Your task to perform on an android device: delete location history Image 0: 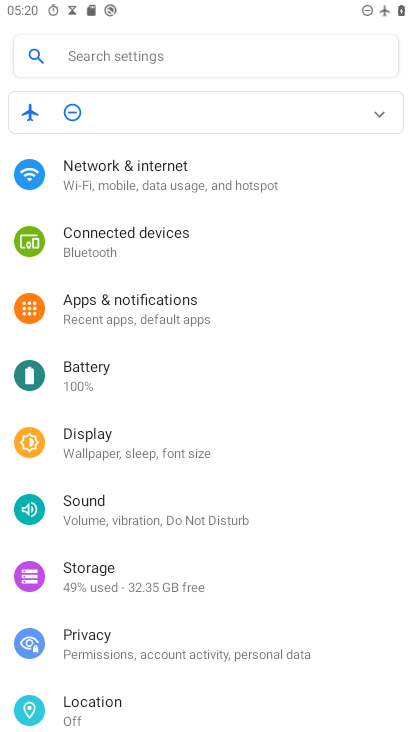
Step 0: press home button
Your task to perform on an android device: delete location history Image 1: 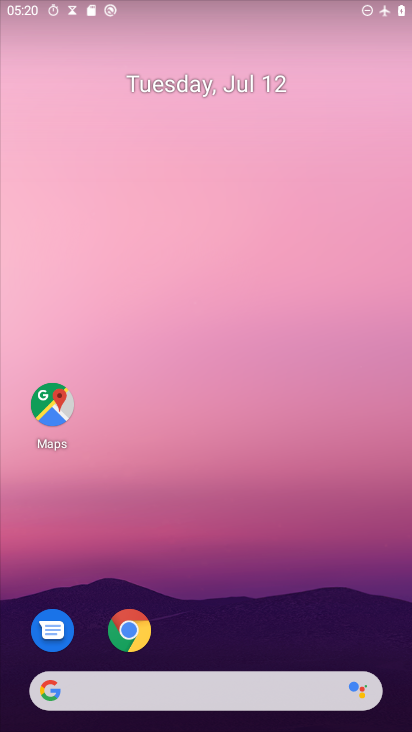
Step 1: drag from (174, 670) to (302, 120)
Your task to perform on an android device: delete location history Image 2: 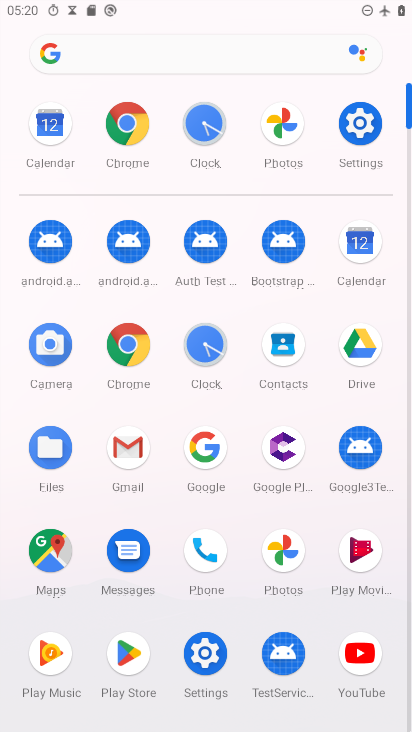
Step 2: click (39, 561)
Your task to perform on an android device: delete location history Image 3: 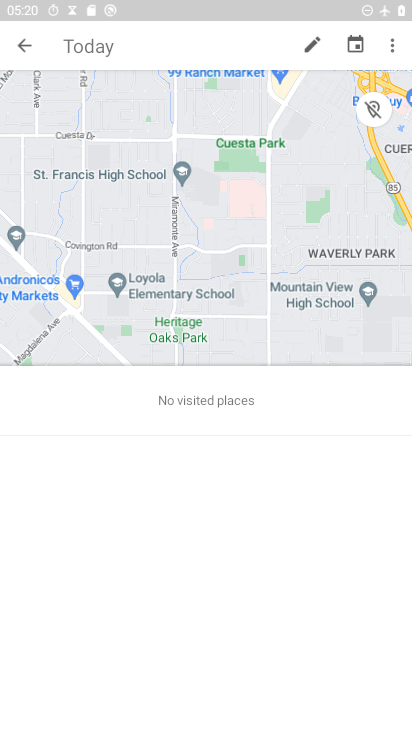
Step 3: click (387, 42)
Your task to perform on an android device: delete location history Image 4: 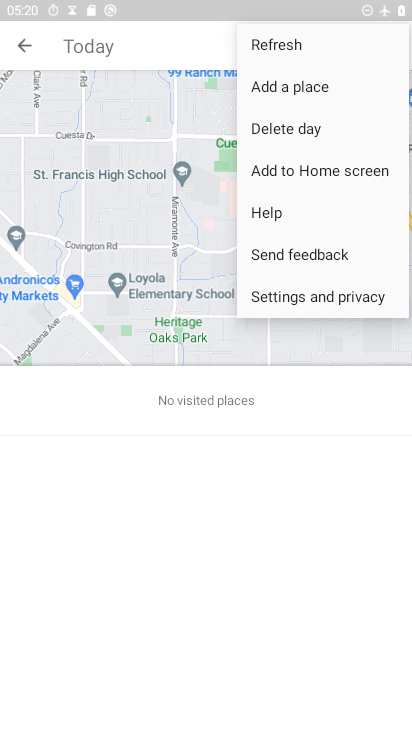
Step 4: click (286, 290)
Your task to perform on an android device: delete location history Image 5: 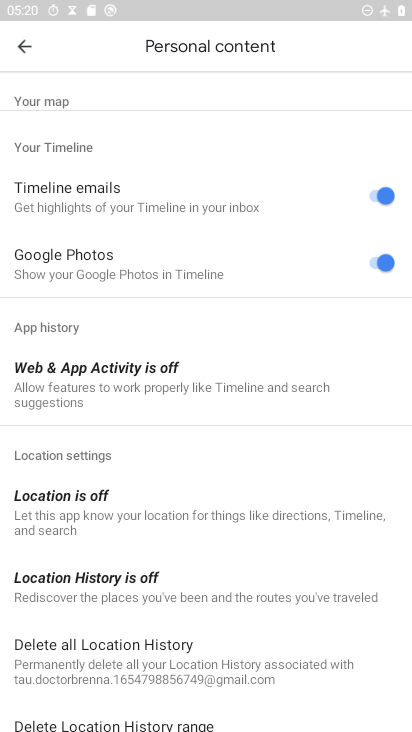
Step 5: click (163, 651)
Your task to perform on an android device: delete location history Image 6: 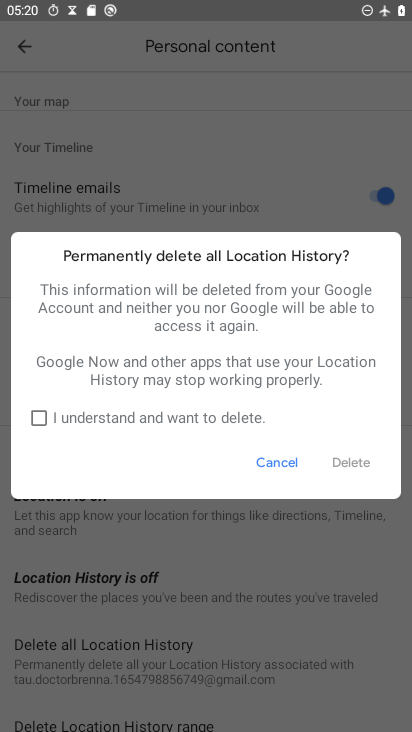
Step 6: click (42, 417)
Your task to perform on an android device: delete location history Image 7: 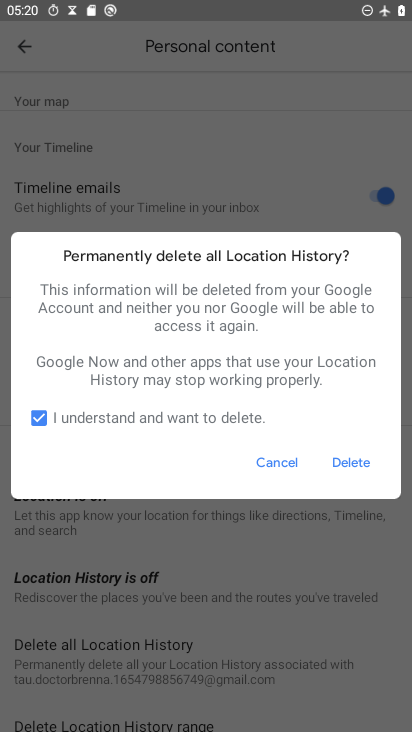
Step 7: click (365, 467)
Your task to perform on an android device: delete location history Image 8: 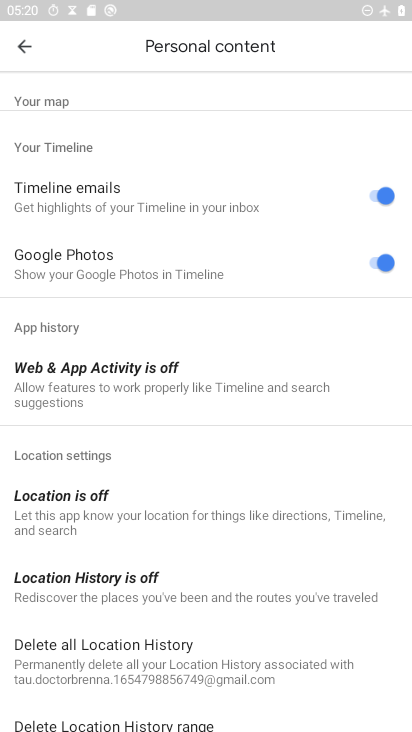
Step 8: task complete